Your task to perform on an android device: make emails show in primary in the gmail app Image 0: 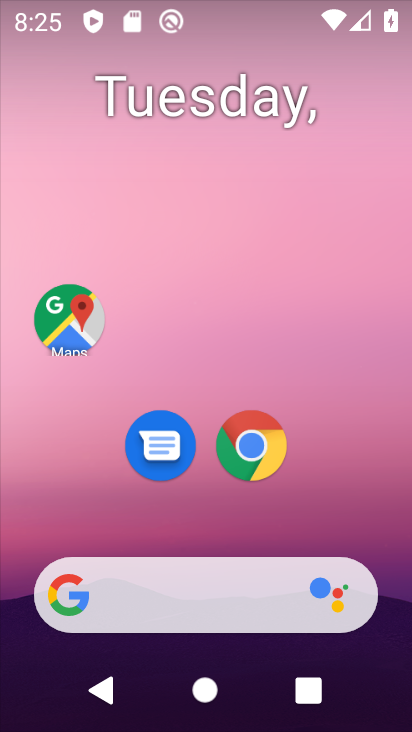
Step 0: drag from (386, 469) to (212, 22)
Your task to perform on an android device: make emails show in primary in the gmail app Image 1: 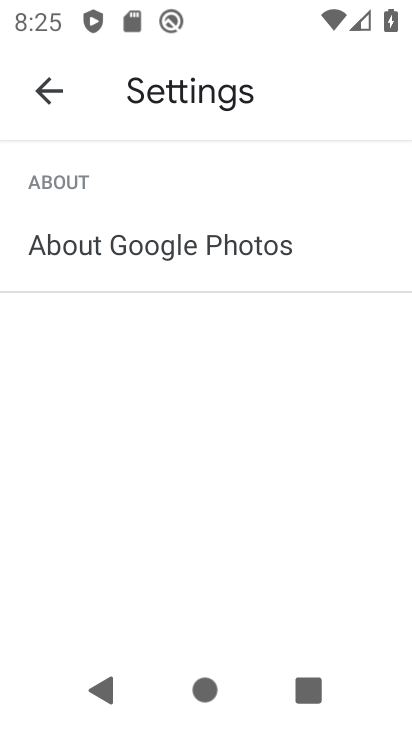
Step 1: press back button
Your task to perform on an android device: make emails show in primary in the gmail app Image 2: 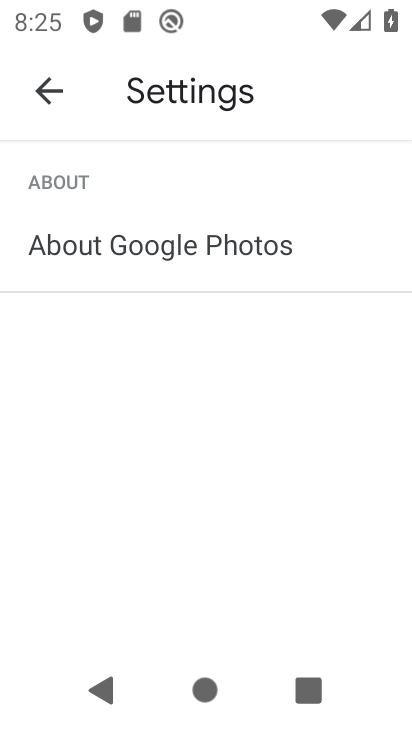
Step 2: press back button
Your task to perform on an android device: make emails show in primary in the gmail app Image 3: 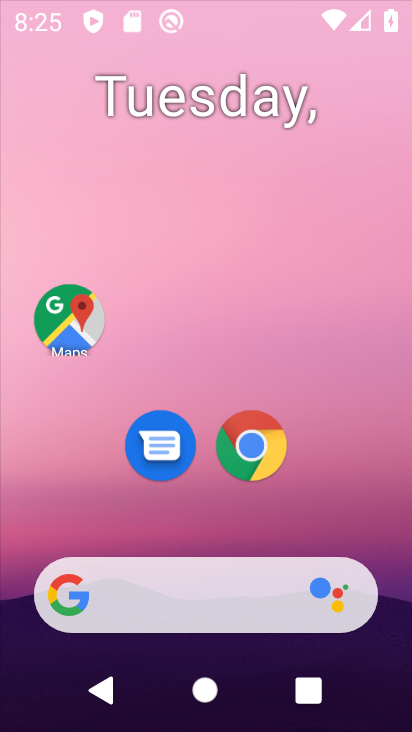
Step 3: press back button
Your task to perform on an android device: make emails show in primary in the gmail app Image 4: 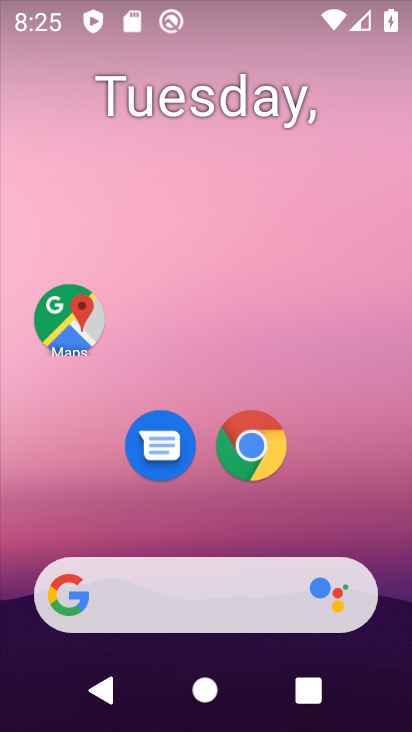
Step 4: drag from (378, 501) to (173, 166)
Your task to perform on an android device: make emails show in primary in the gmail app Image 5: 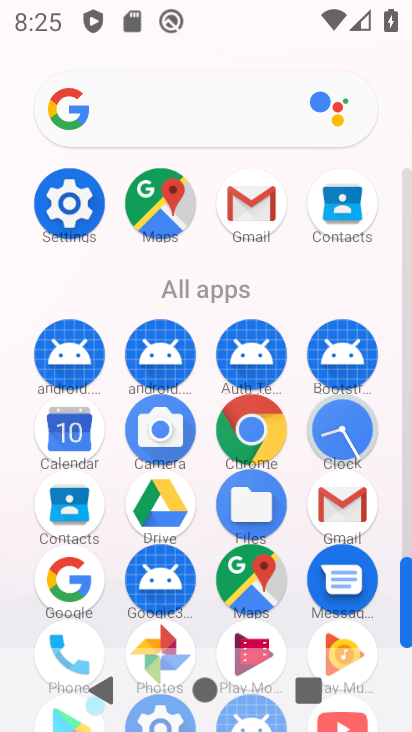
Step 5: click (342, 498)
Your task to perform on an android device: make emails show in primary in the gmail app Image 6: 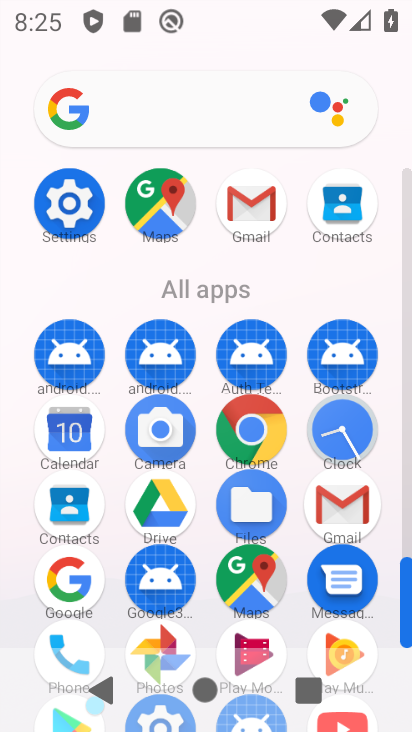
Step 6: click (342, 498)
Your task to perform on an android device: make emails show in primary in the gmail app Image 7: 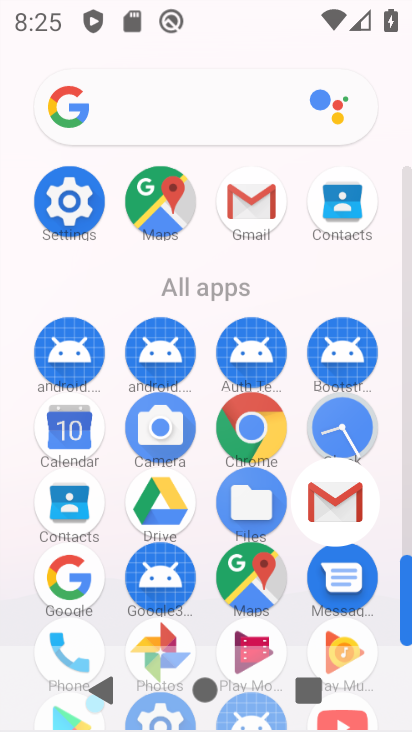
Step 7: click (342, 498)
Your task to perform on an android device: make emails show in primary in the gmail app Image 8: 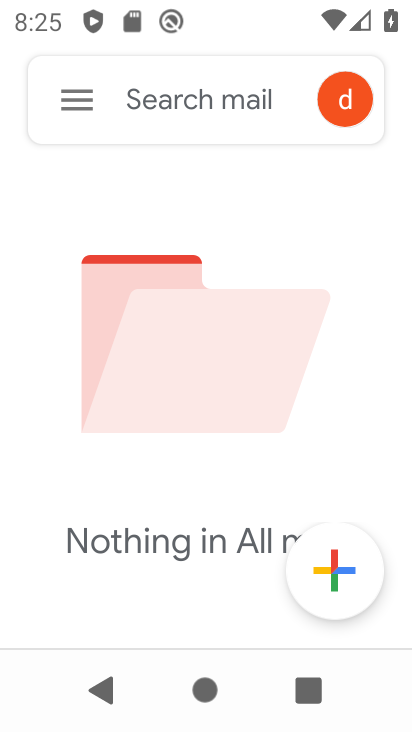
Step 8: click (63, 97)
Your task to perform on an android device: make emails show in primary in the gmail app Image 9: 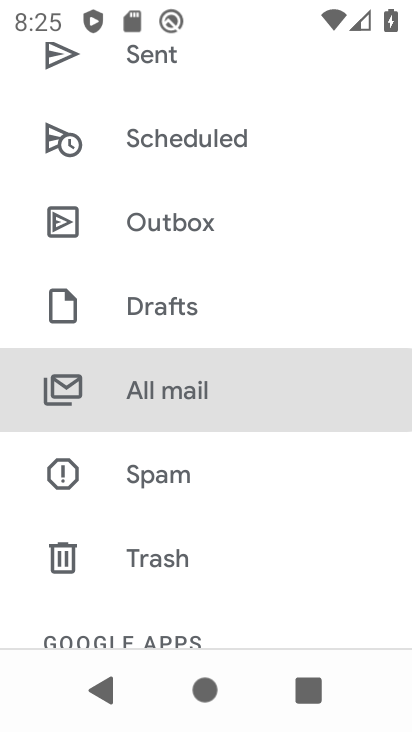
Step 9: drag from (215, 520) to (142, 46)
Your task to perform on an android device: make emails show in primary in the gmail app Image 10: 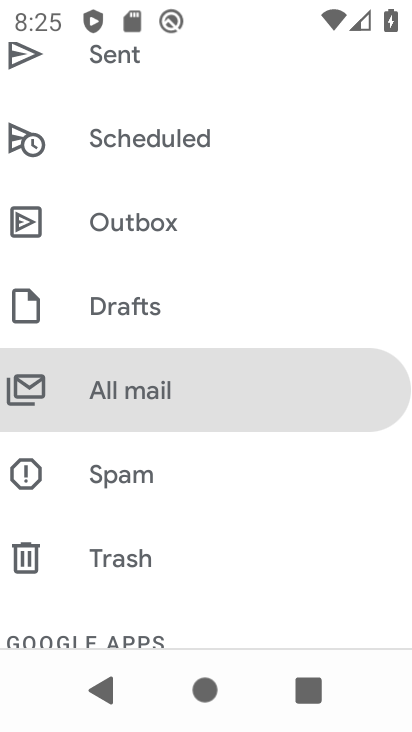
Step 10: drag from (318, 496) to (203, 76)
Your task to perform on an android device: make emails show in primary in the gmail app Image 11: 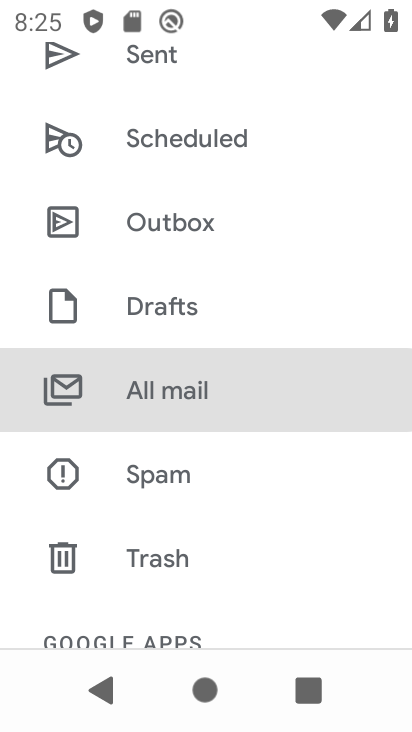
Step 11: drag from (176, 526) to (133, 185)
Your task to perform on an android device: make emails show in primary in the gmail app Image 12: 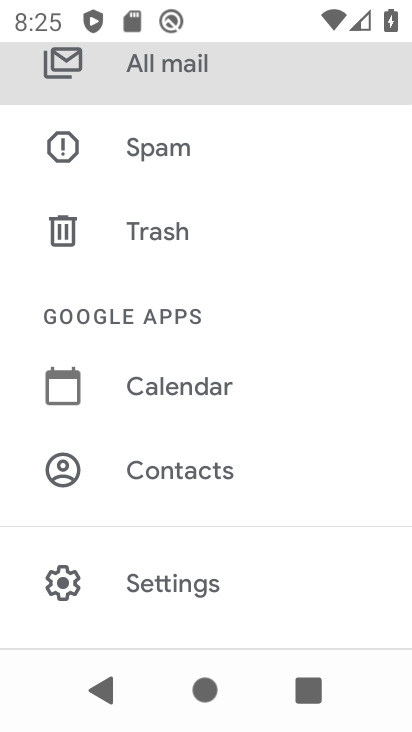
Step 12: drag from (279, 474) to (222, 140)
Your task to perform on an android device: make emails show in primary in the gmail app Image 13: 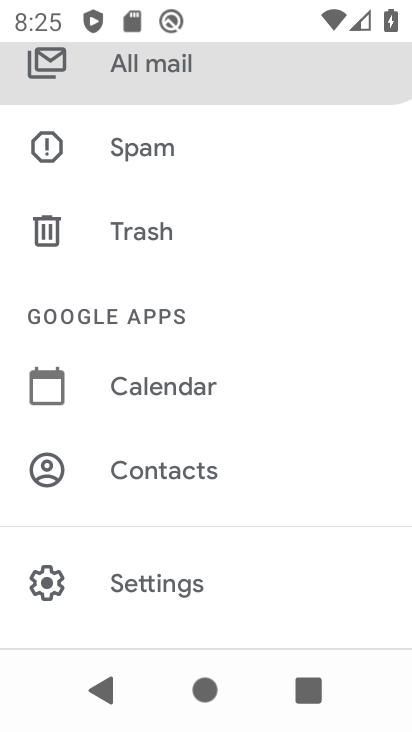
Step 13: drag from (313, 562) to (237, 132)
Your task to perform on an android device: make emails show in primary in the gmail app Image 14: 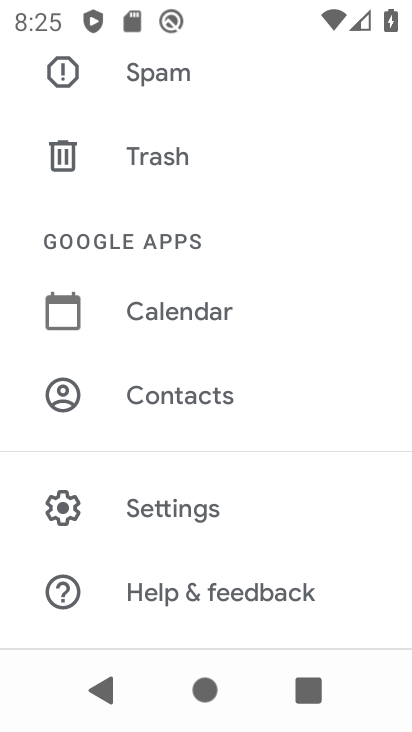
Step 14: click (165, 515)
Your task to perform on an android device: make emails show in primary in the gmail app Image 15: 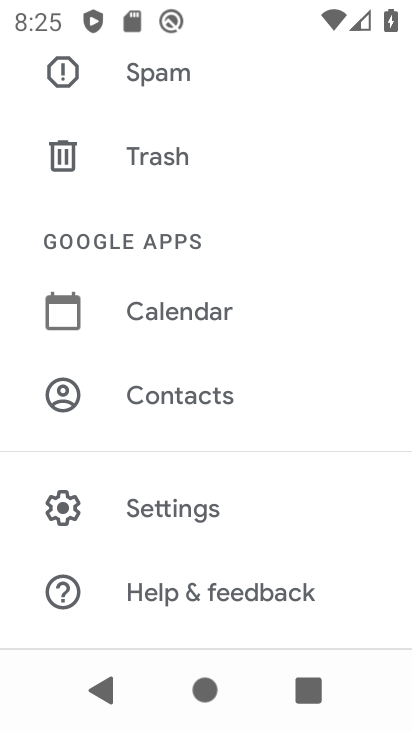
Step 15: click (168, 514)
Your task to perform on an android device: make emails show in primary in the gmail app Image 16: 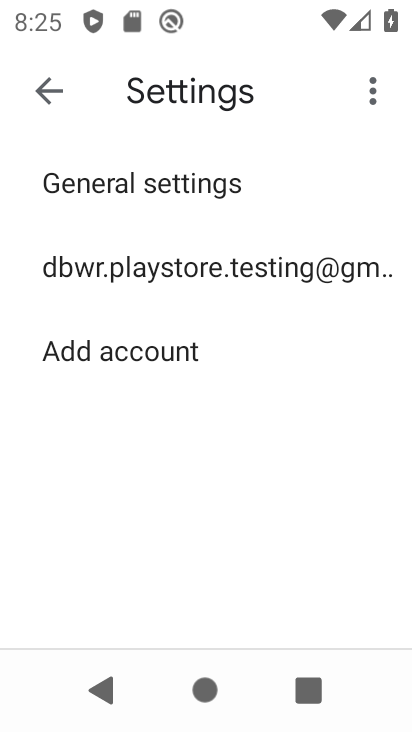
Step 16: click (156, 267)
Your task to perform on an android device: make emails show in primary in the gmail app Image 17: 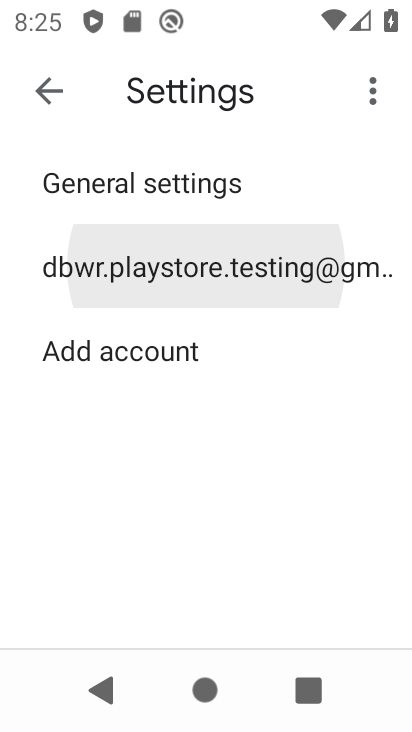
Step 17: click (156, 267)
Your task to perform on an android device: make emails show in primary in the gmail app Image 18: 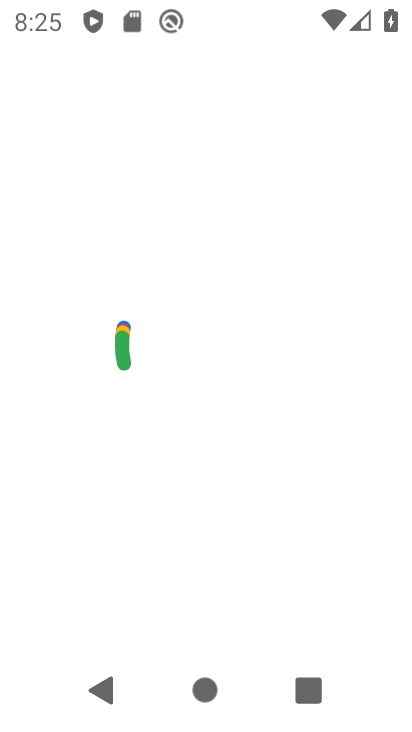
Step 18: press back button
Your task to perform on an android device: make emails show in primary in the gmail app Image 19: 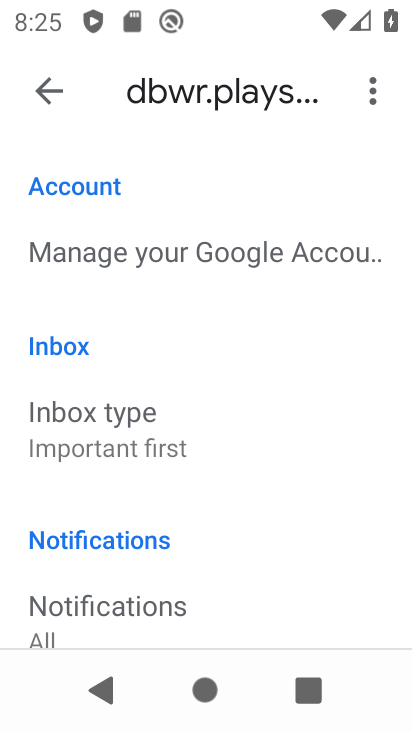
Step 19: click (99, 460)
Your task to perform on an android device: make emails show in primary in the gmail app Image 20: 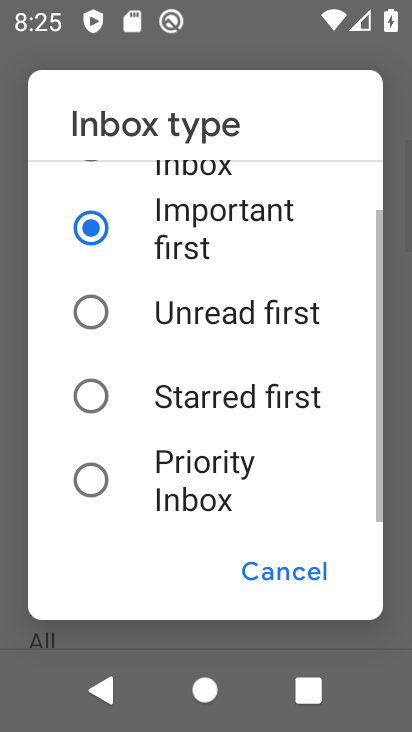
Step 20: click (89, 395)
Your task to perform on an android device: make emails show in primary in the gmail app Image 21: 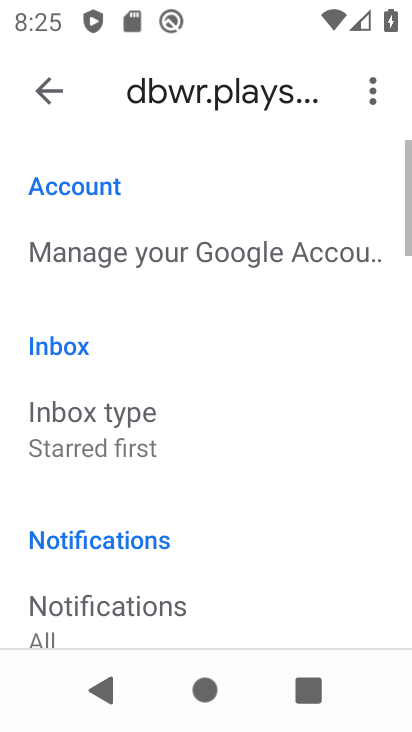
Step 21: drag from (164, 506) to (112, 184)
Your task to perform on an android device: make emails show in primary in the gmail app Image 22: 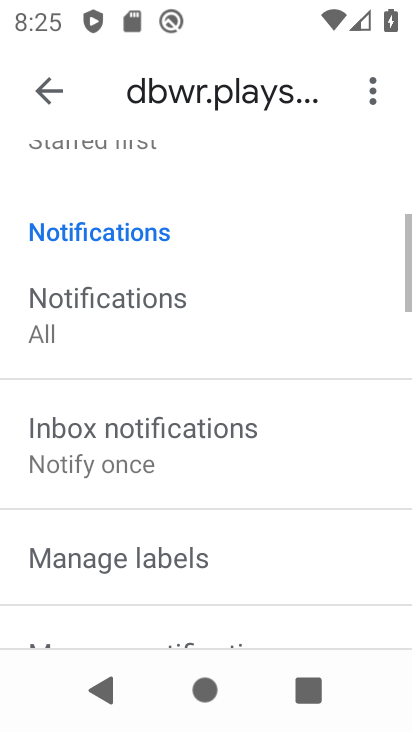
Step 22: drag from (162, 468) to (132, 201)
Your task to perform on an android device: make emails show in primary in the gmail app Image 23: 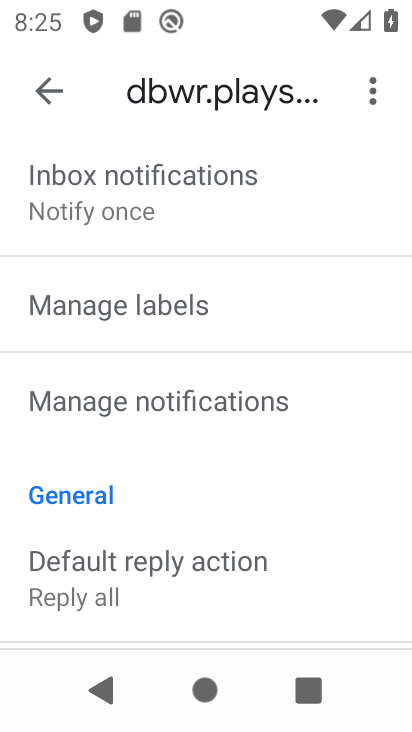
Step 23: drag from (119, 232) to (155, 522)
Your task to perform on an android device: make emails show in primary in the gmail app Image 24: 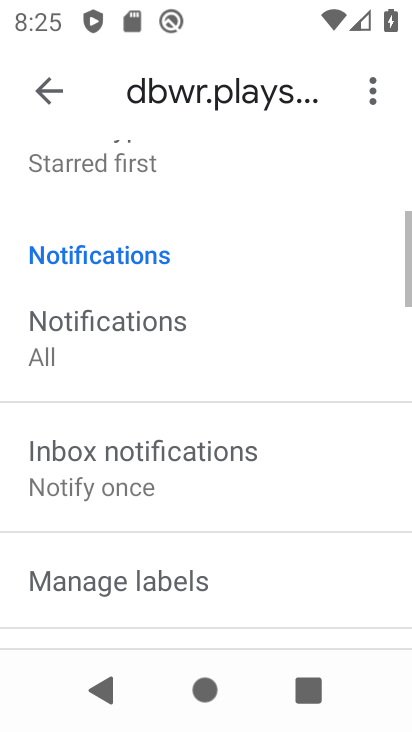
Step 24: drag from (95, 312) to (137, 578)
Your task to perform on an android device: make emails show in primary in the gmail app Image 25: 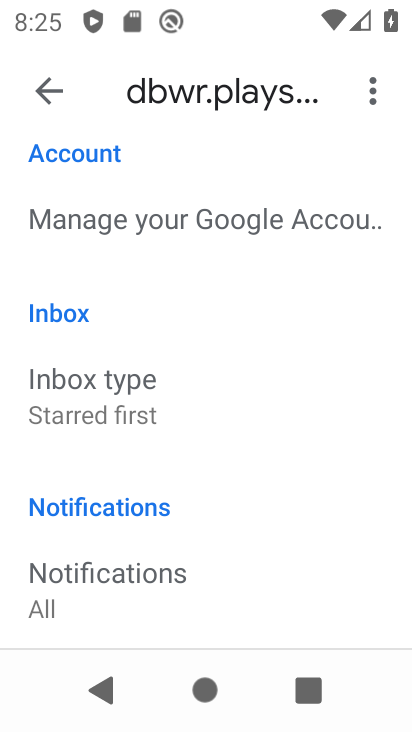
Step 25: click (93, 400)
Your task to perform on an android device: make emails show in primary in the gmail app Image 26: 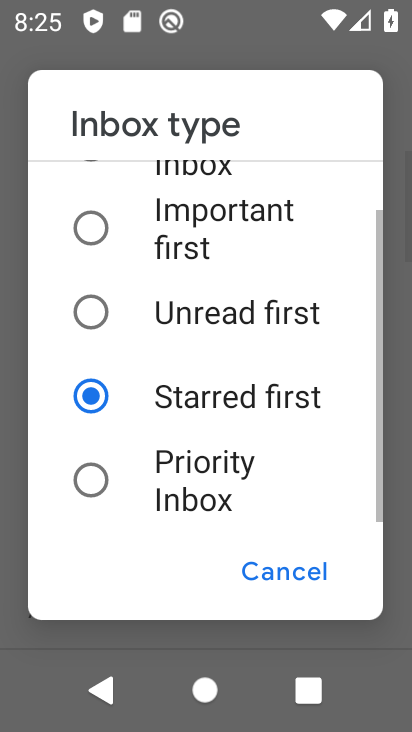
Step 26: click (81, 222)
Your task to perform on an android device: make emails show in primary in the gmail app Image 27: 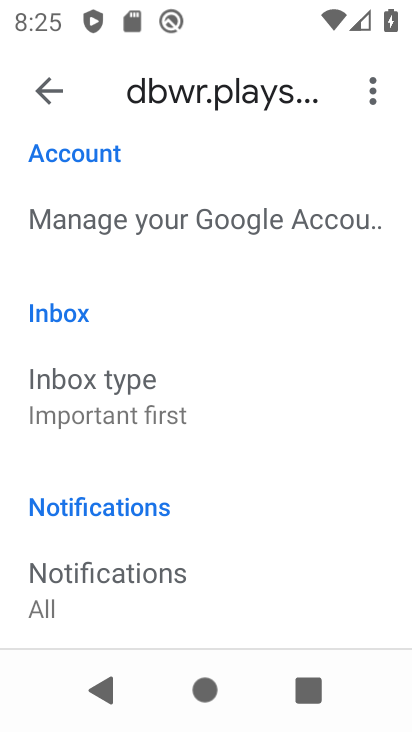
Step 27: task complete